Your task to perform on an android device: Go to wifi settings Image 0: 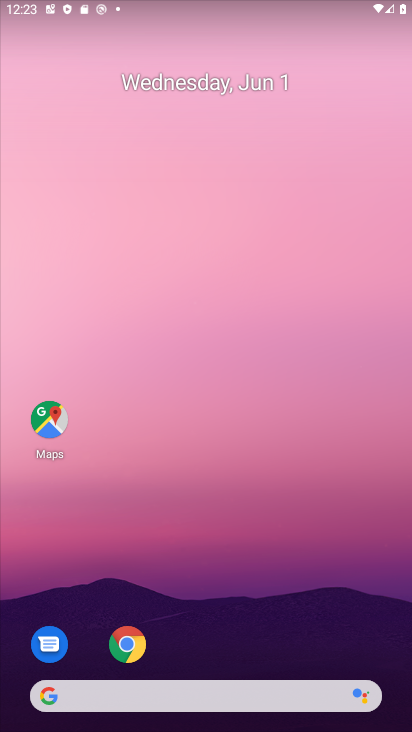
Step 0: drag from (323, 606) to (336, 164)
Your task to perform on an android device: Go to wifi settings Image 1: 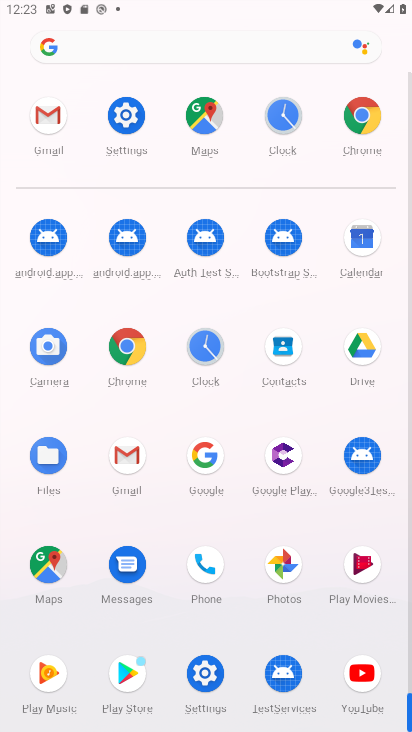
Step 1: click (210, 666)
Your task to perform on an android device: Go to wifi settings Image 2: 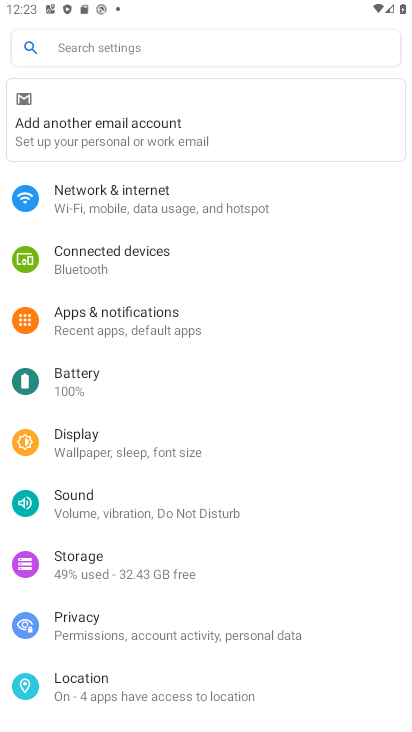
Step 2: click (205, 195)
Your task to perform on an android device: Go to wifi settings Image 3: 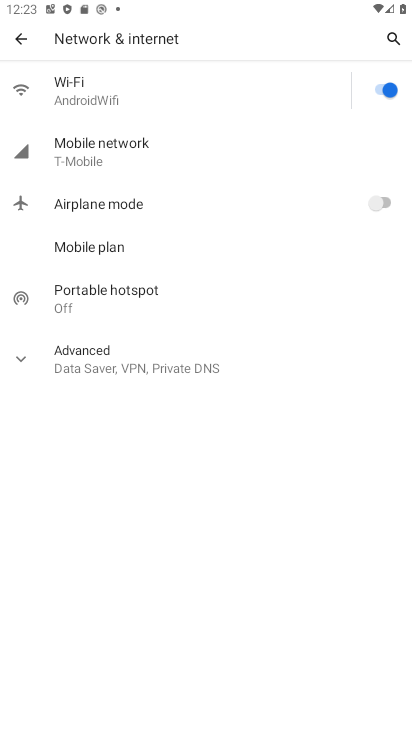
Step 3: click (134, 92)
Your task to perform on an android device: Go to wifi settings Image 4: 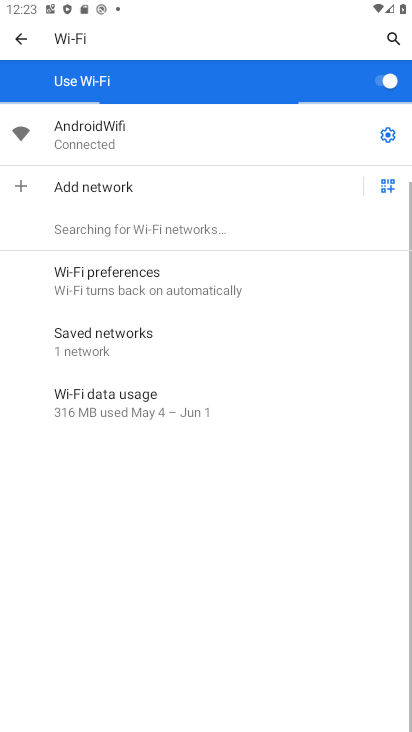
Step 4: click (396, 133)
Your task to perform on an android device: Go to wifi settings Image 5: 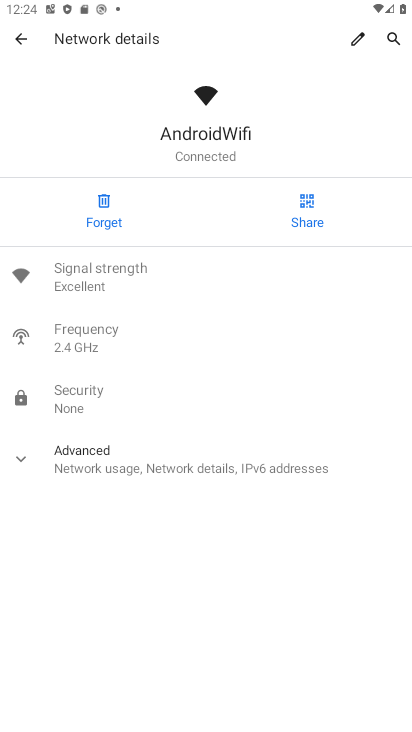
Step 5: task complete